Your task to perform on an android device: clear all cookies in the chrome app Image 0: 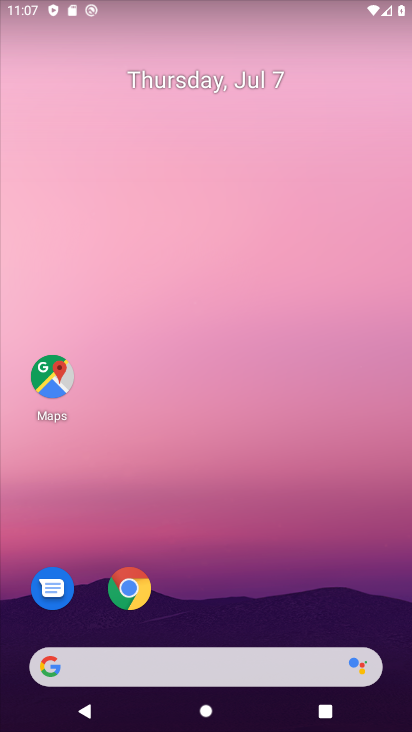
Step 0: click (120, 588)
Your task to perform on an android device: clear all cookies in the chrome app Image 1: 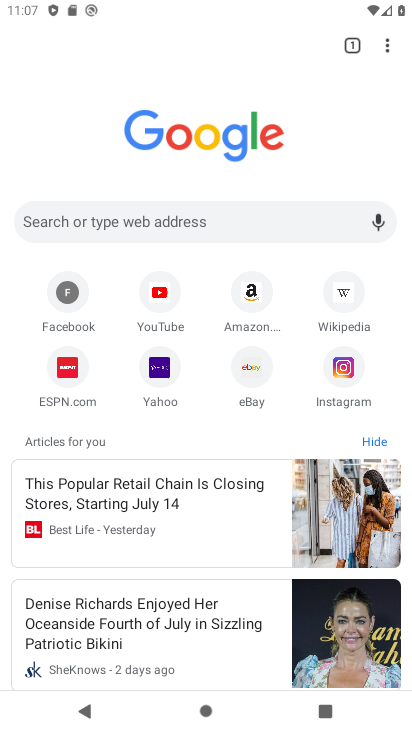
Step 1: click (389, 41)
Your task to perform on an android device: clear all cookies in the chrome app Image 2: 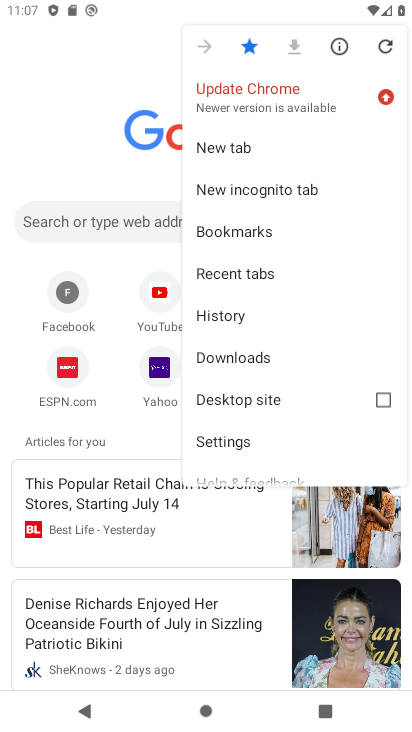
Step 2: click (229, 441)
Your task to perform on an android device: clear all cookies in the chrome app Image 3: 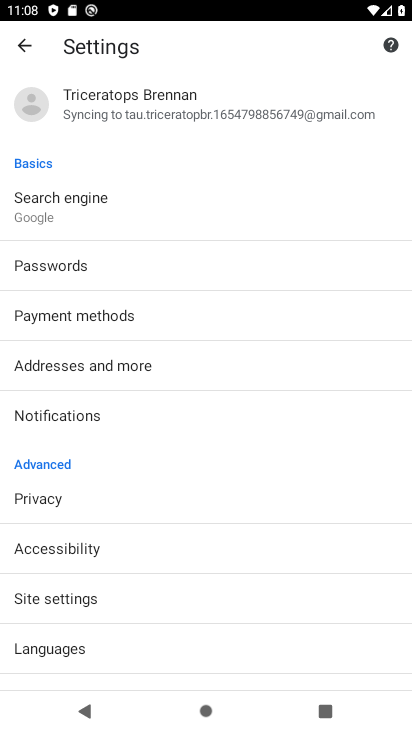
Step 3: drag from (195, 580) to (166, 393)
Your task to perform on an android device: clear all cookies in the chrome app Image 4: 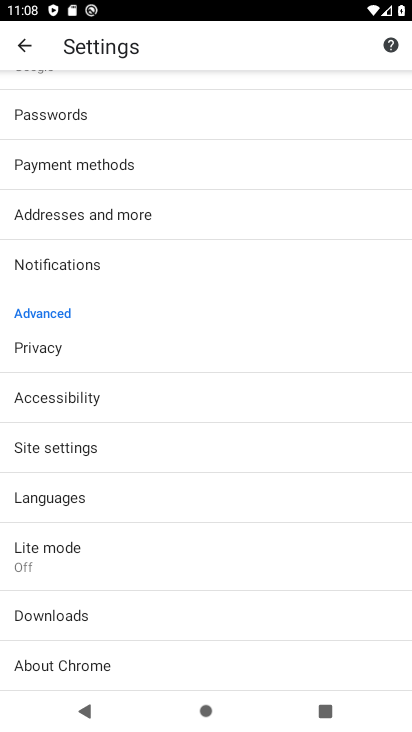
Step 4: click (41, 346)
Your task to perform on an android device: clear all cookies in the chrome app Image 5: 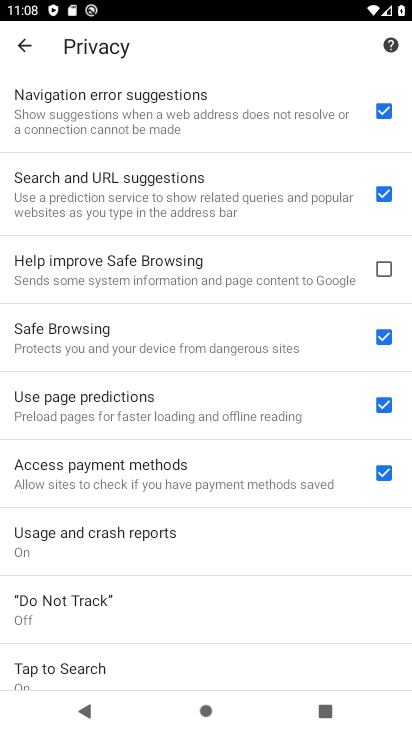
Step 5: drag from (256, 599) to (224, 286)
Your task to perform on an android device: clear all cookies in the chrome app Image 6: 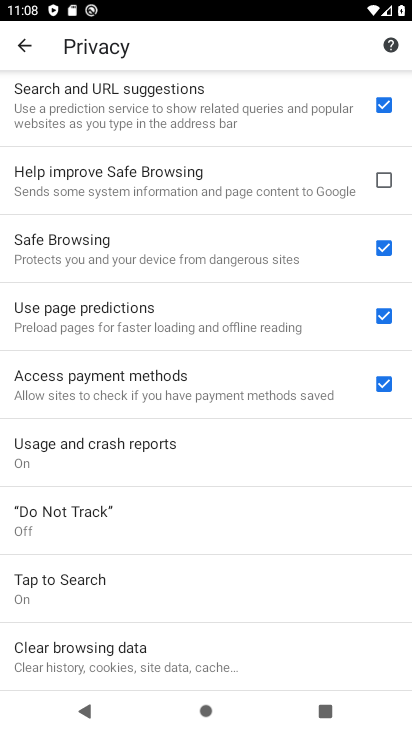
Step 6: click (113, 656)
Your task to perform on an android device: clear all cookies in the chrome app Image 7: 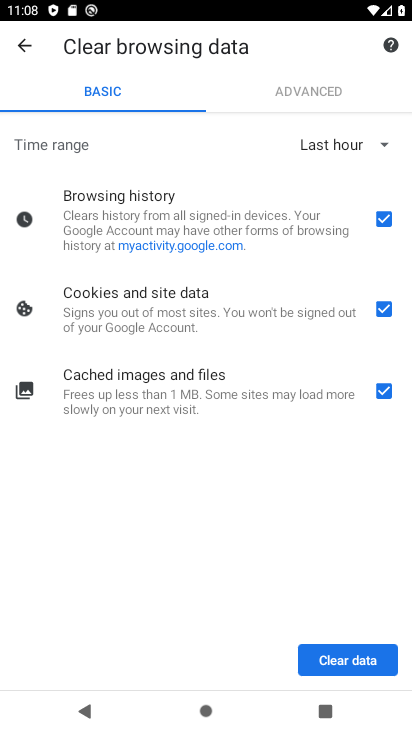
Step 7: click (382, 142)
Your task to perform on an android device: clear all cookies in the chrome app Image 8: 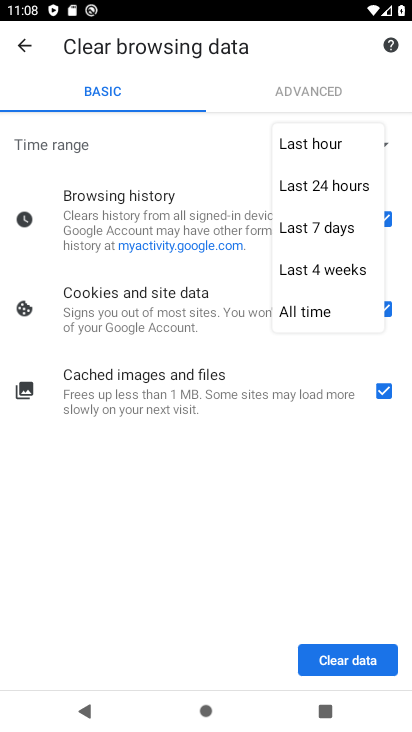
Step 8: click (318, 304)
Your task to perform on an android device: clear all cookies in the chrome app Image 9: 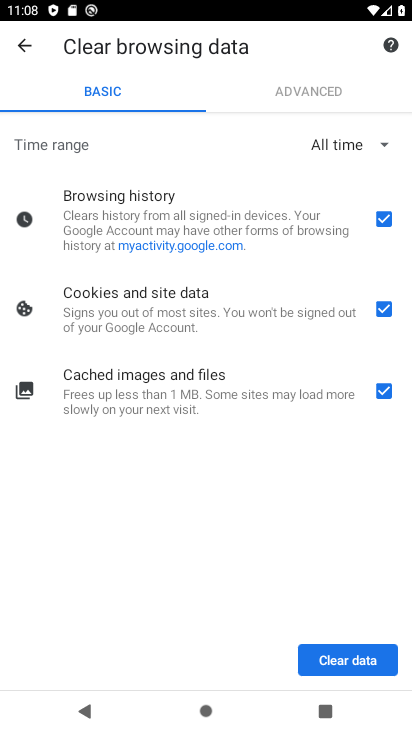
Step 9: click (391, 220)
Your task to perform on an android device: clear all cookies in the chrome app Image 10: 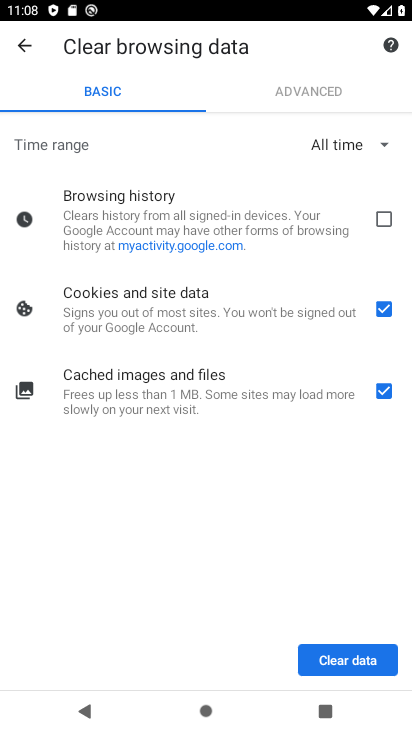
Step 10: click (381, 390)
Your task to perform on an android device: clear all cookies in the chrome app Image 11: 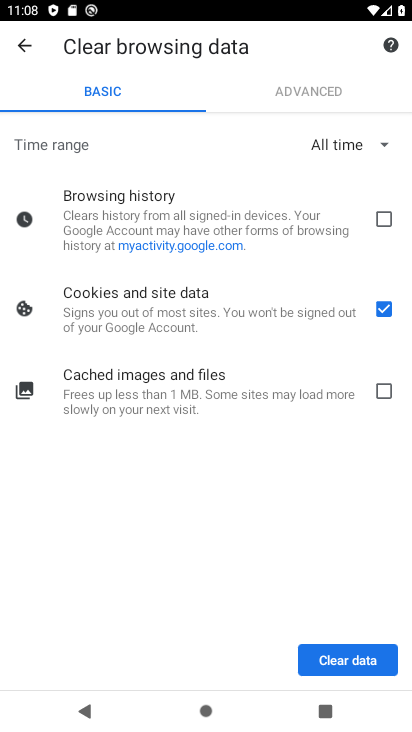
Step 11: click (339, 659)
Your task to perform on an android device: clear all cookies in the chrome app Image 12: 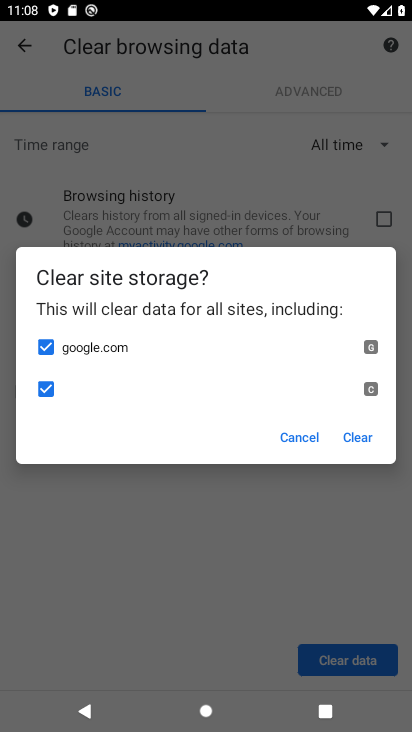
Step 12: click (348, 434)
Your task to perform on an android device: clear all cookies in the chrome app Image 13: 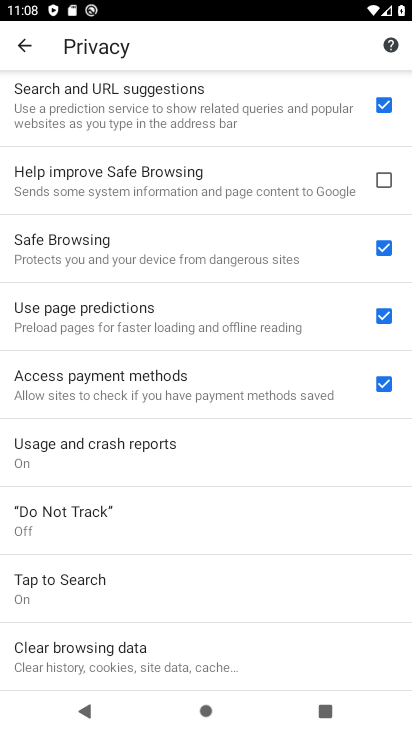
Step 13: task complete